Your task to perform on an android device: find snoozed emails in the gmail app Image 0: 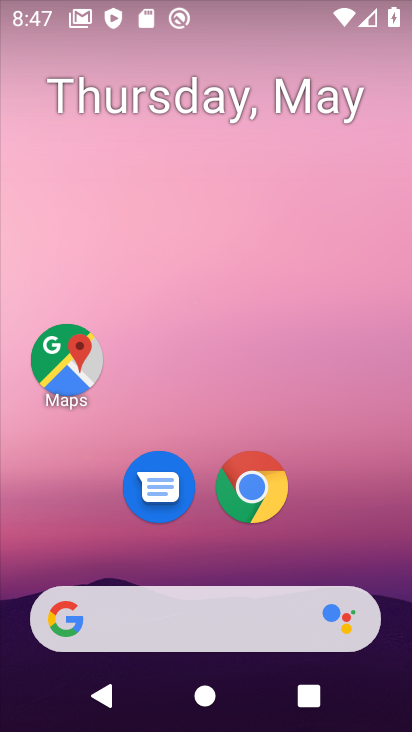
Step 0: drag from (223, 569) to (208, 18)
Your task to perform on an android device: find snoozed emails in the gmail app Image 1: 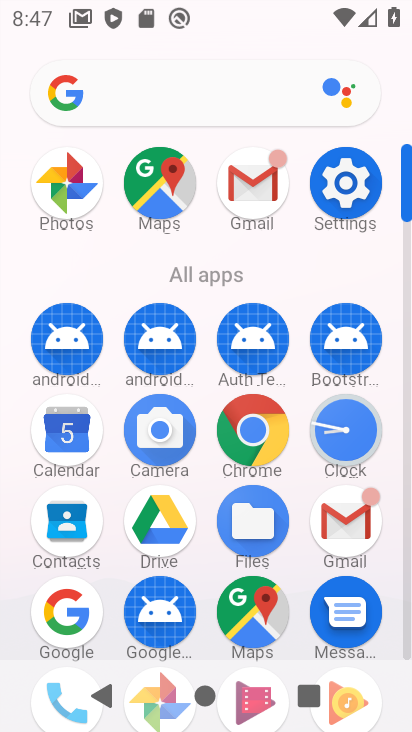
Step 1: click (321, 497)
Your task to perform on an android device: find snoozed emails in the gmail app Image 2: 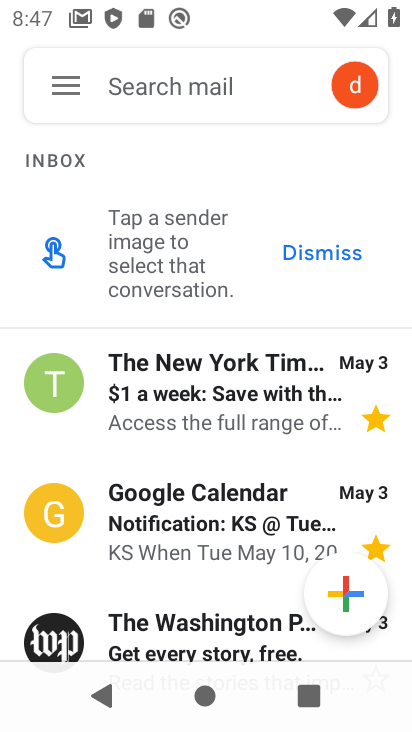
Step 2: click (56, 83)
Your task to perform on an android device: find snoozed emails in the gmail app Image 3: 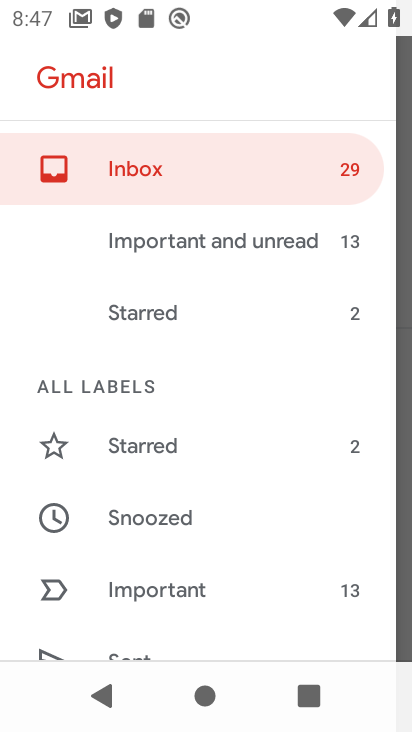
Step 3: click (162, 507)
Your task to perform on an android device: find snoozed emails in the gmail app Image 4: 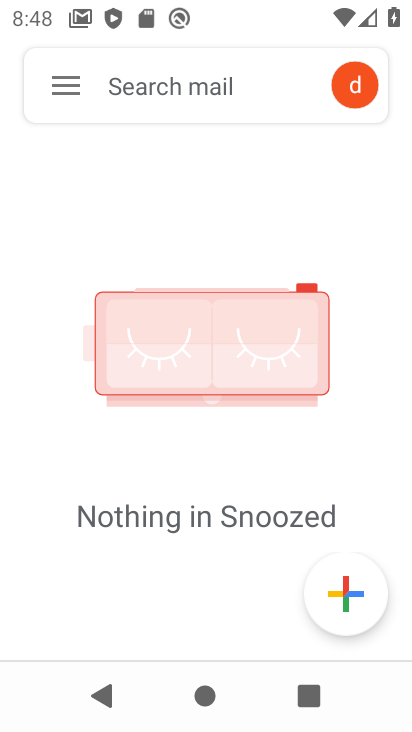
Step 4: task complete